Your task to perform on an android device: What's the weather going to be this weekend? Image 0: 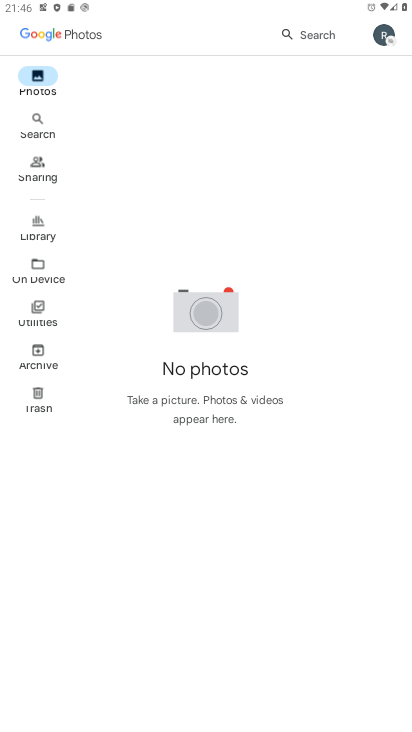
Step 0: drag from (243, 489) to (199, 182)
Your task to perform on an android device: What's the weather going to be this weekend? Image 1: 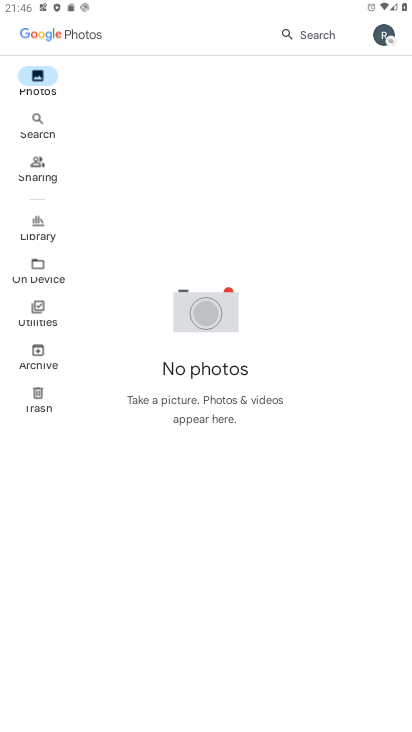
Step 1: drag from (367, 567) to (329, 289)
Your task to perform on an android device: What's the weather going to be this weekend? Image 2: 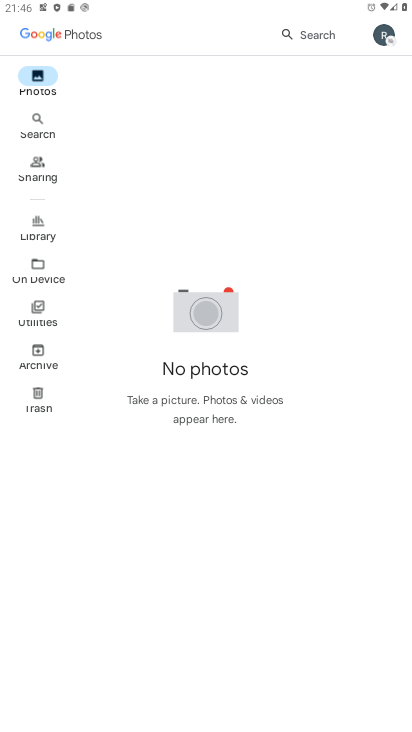
Step 2: drag from (219, 614) to (238, 385)
Your task to perform on an android device: What's the weather going to be this weekend? Image 3: 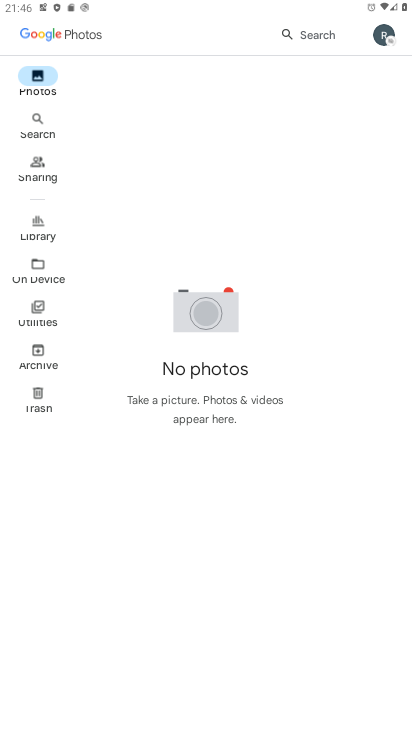
Step 3: drag from (206, 541) to (252, 181)
Your task to perform on an android device: What's the weather going to be this weekend? Image 4: 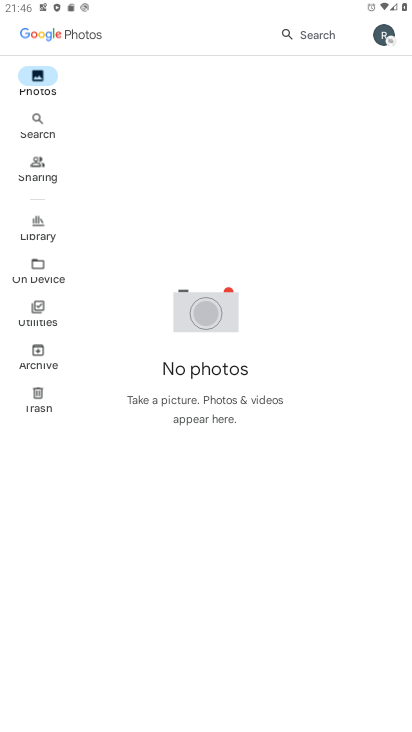
Step 4: press home button
Your task to perform on an android device: What's the weather going to be this weekend? Image 5: 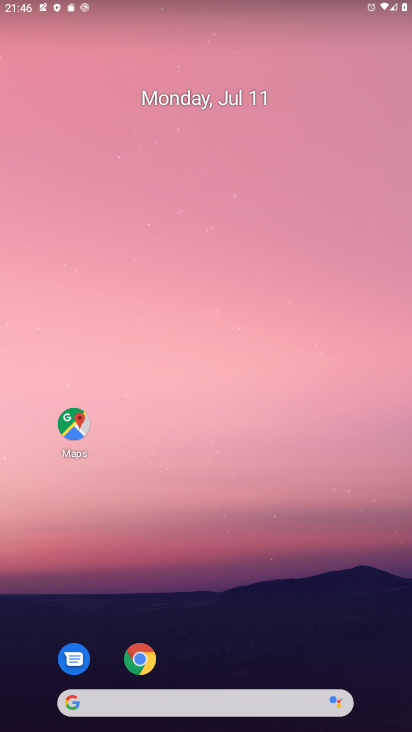
Step 5: drag from (195, 651) to (213, 322)
Your task to perform on an android device: What's the weather going to be this weekend? Image 6: 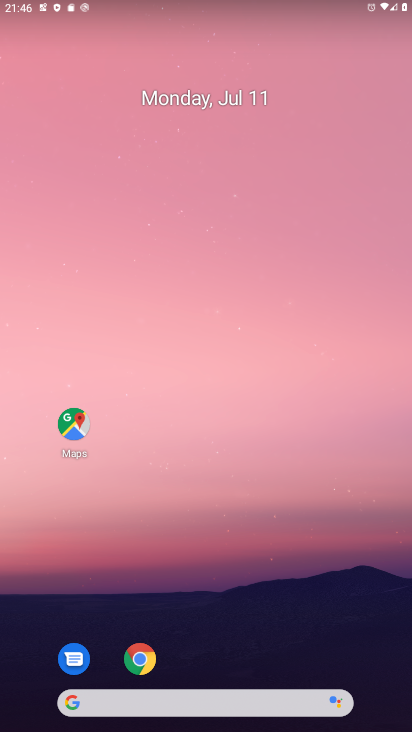
Step 6: drag from (219, 659) to (201, 99)
Your task to perform on an android device: What's the weather going to be this weekend? Image 7: 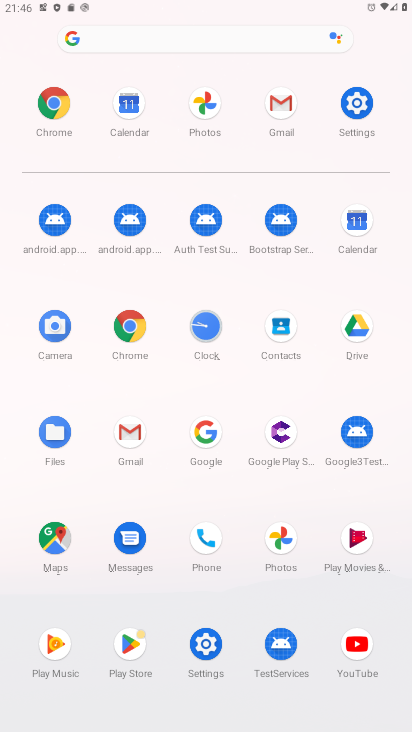
Step 7: click (146, 32)
Your task to perform on an android device: What's the weather going to be this weekend? Image 8: 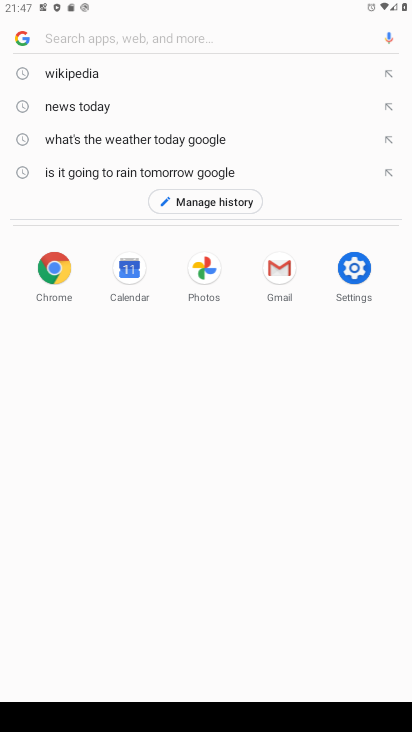
Step 8: type "What's the weather going to be this weekend?"
Your task to perform on an android device: What's the weather going to be this weekend? Image 9: 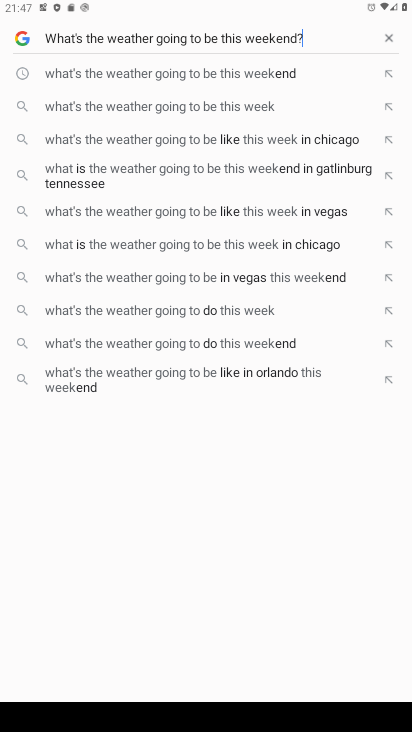
Step 9: type ""
Your task to perform on an android device: What's the weather going to be this weekend? Image 10: 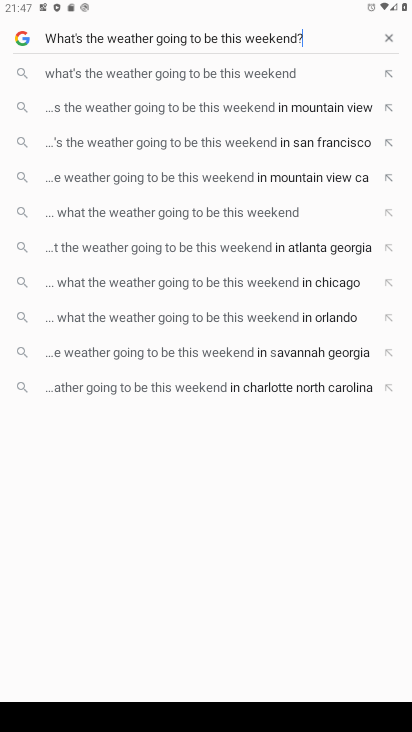
Step 10: click (223, 70)
Your task to perform on an android device: What's the weather going to be this weekend? Image 11: 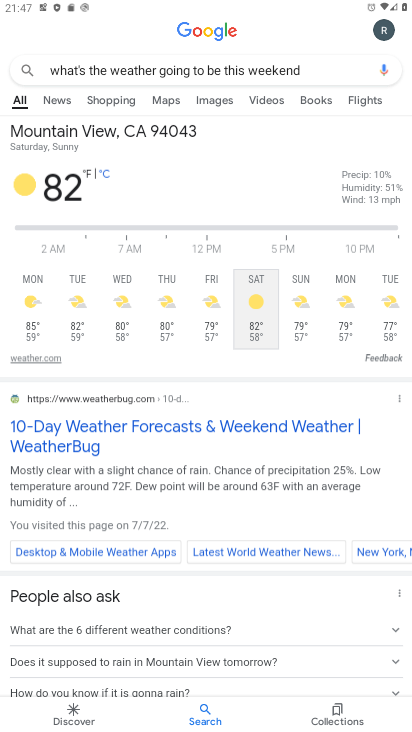
Step 11: task complete